Your task to perform on an android device: Open location settings Image 0: 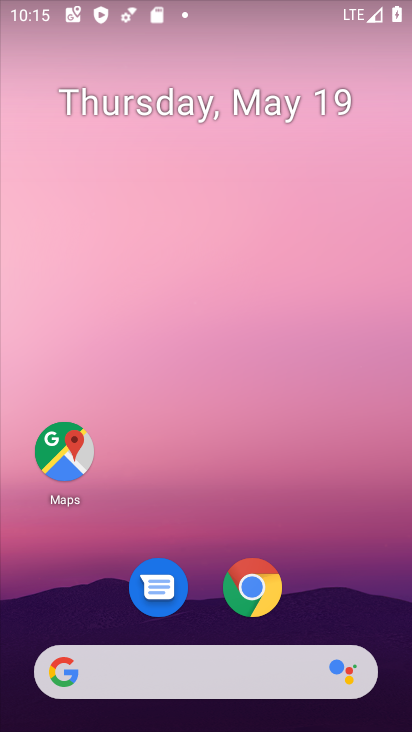
Step 0: drag from (209, 625) to (260, 271)
Your task to perform on an android device: Open location settings Image 1: 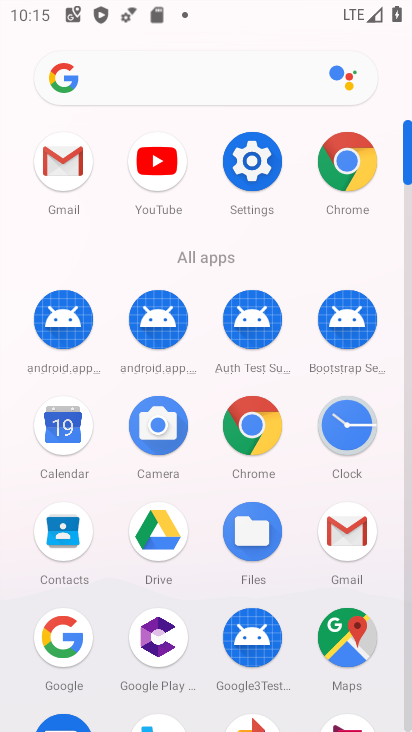
Step 1: click (268, 149)
Your task to perform on an android device: Open location settings Image 2: 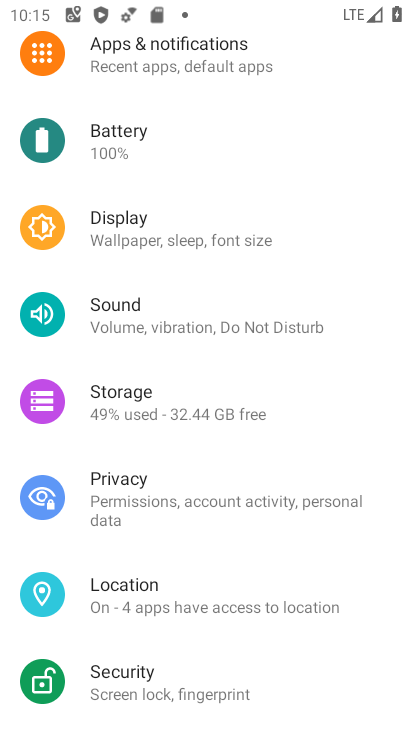
Step 2: click (148, 612)
Your task to perform on an android device: Open location settings Image 3: 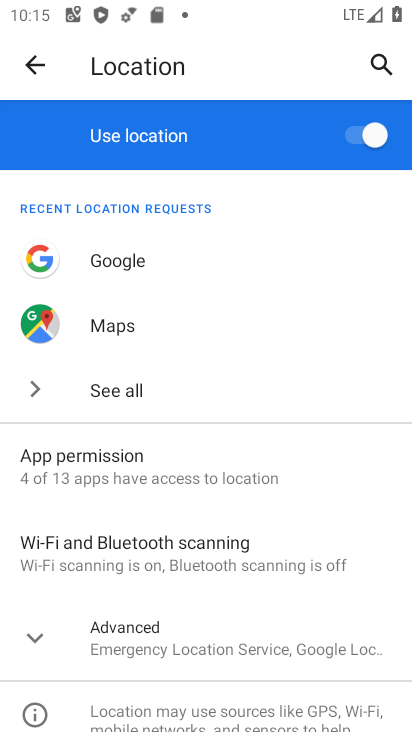
Step 3: task complete